Your task to perform on an android device: change the clock display to digital Image 0: 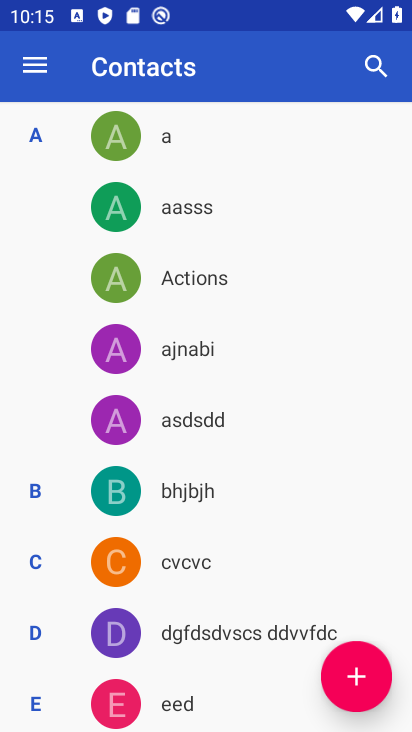
Step 0: press home button
Your task to perform on an android device: change the clock display to digital Image 1: 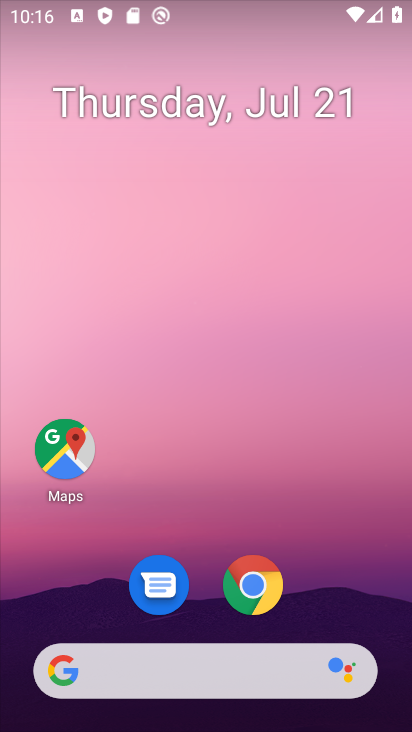
Step 1: drag from (335, 579) to (313, 100)
Your task to perform on an android device: change the clock display to digital Image 2: 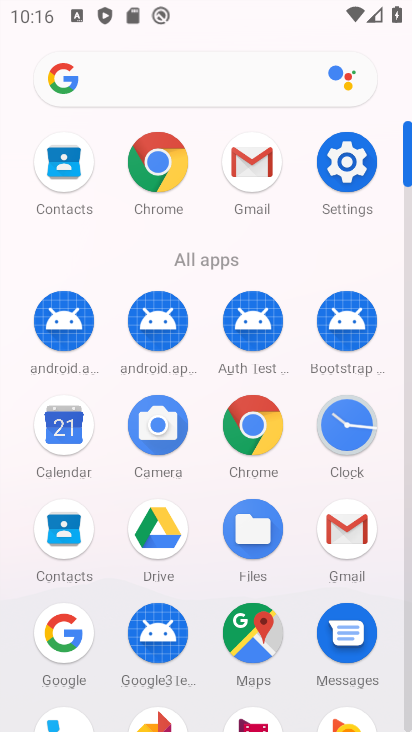
Step 2: click (350, 426)
Your task to perform on an android device: change the clock display to digital Image 3: 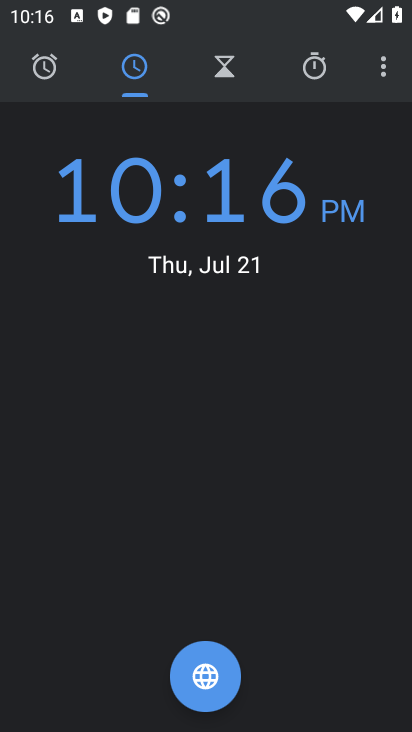
Step 3: task complete